Your task to perform on an android device: turn off picture-in-picture Image 0: 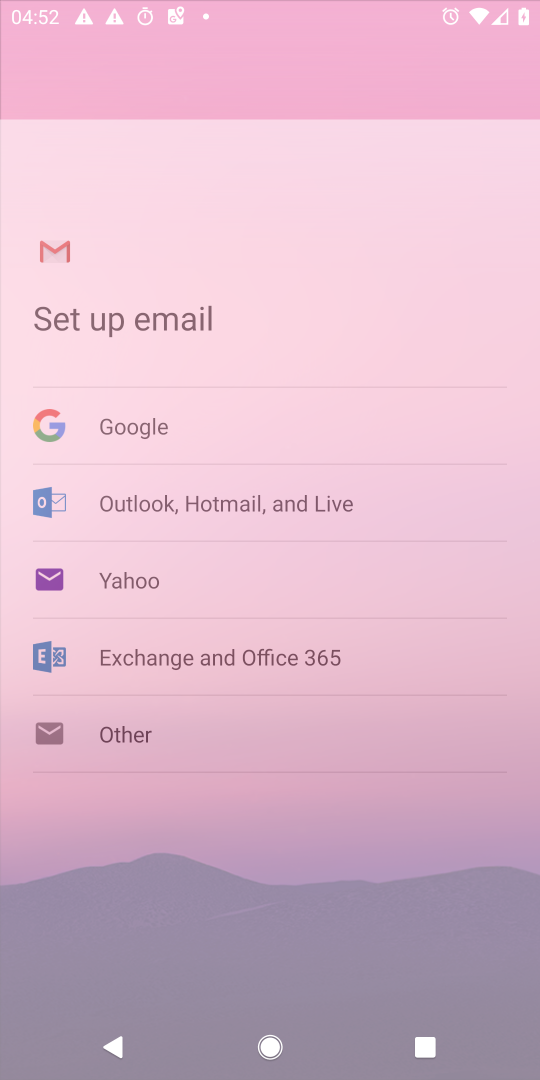
Step 0: press home button
Your task to perform on an android device: turn off picture-in-picture Image 1: 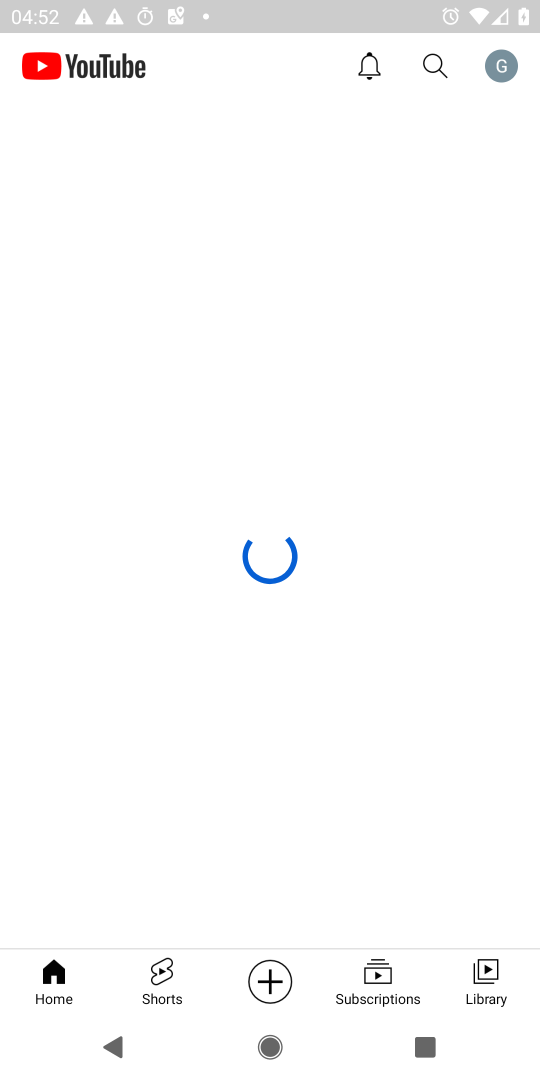
Step 1: press home button
Your task to perform on an android device: turn off picture-in-picture Image 2: 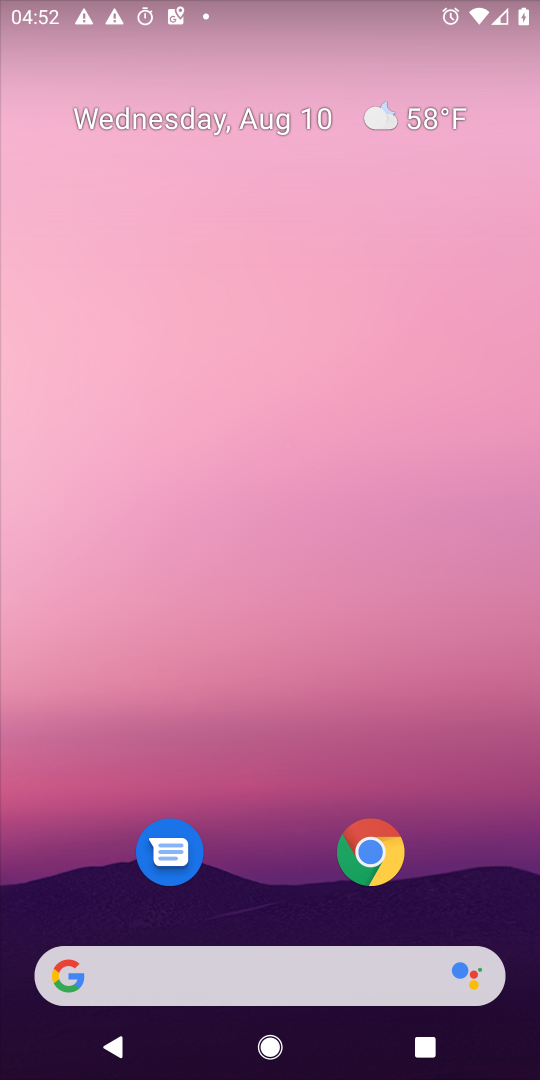
Step 2: press home button
Your task to perform on an android device: turn off picture-in-picture Image 3: 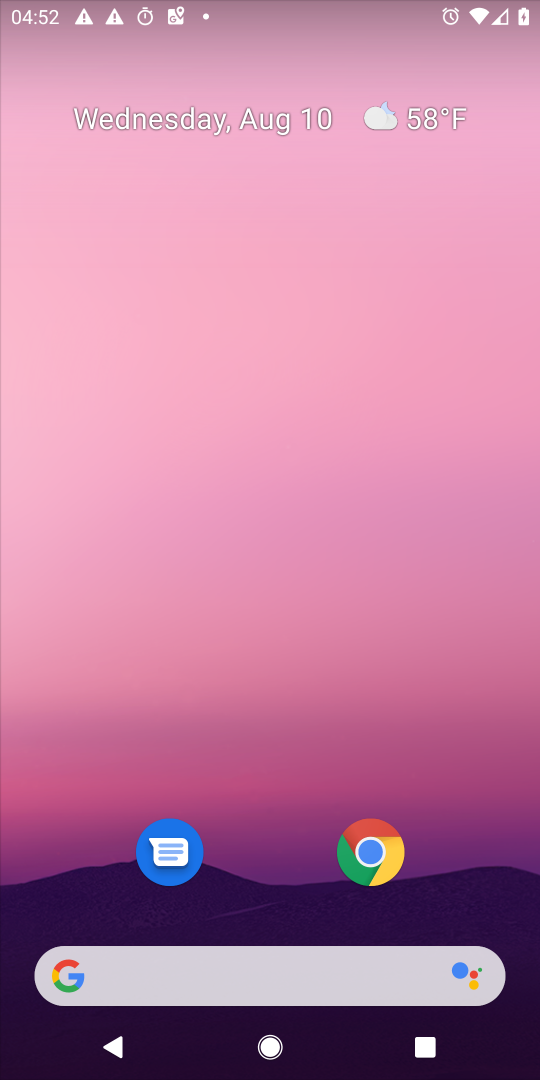
Step 3: click (379, 849)
Your task to perform on an android device: turn off picture-in-picture Image 4: 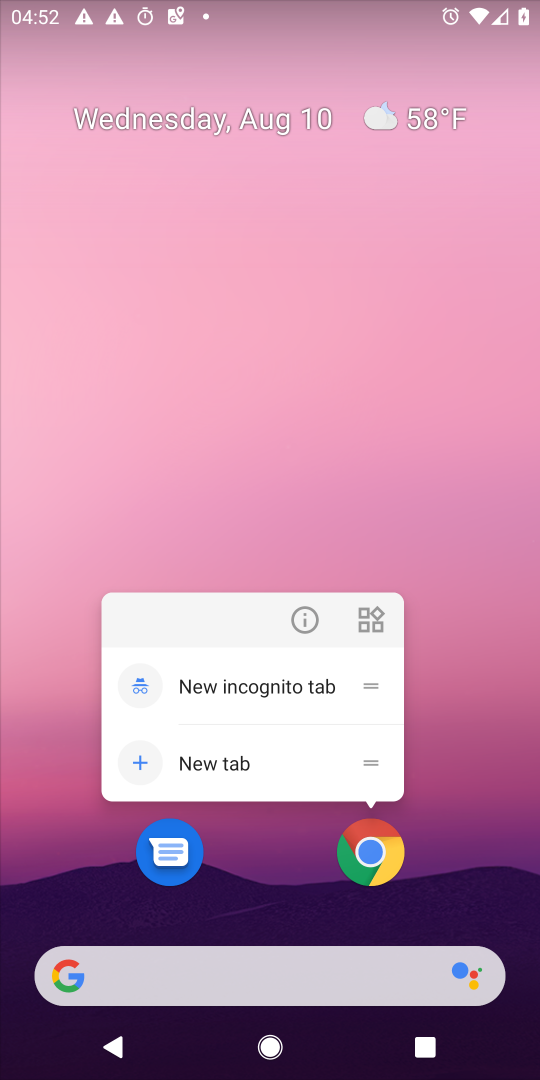
Step 4: click (310, 626)
Your task to perform on an android device: turn off picture-in-picture Image 5: 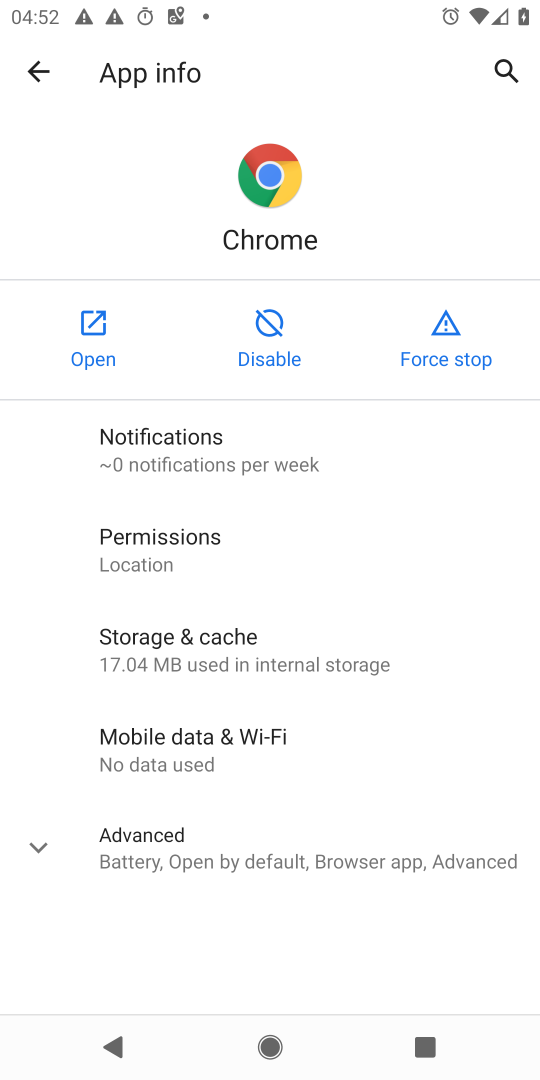
Step 5: click (232, 855)
Your task to perform on an android device: turn off picture-in-picture Image 6: 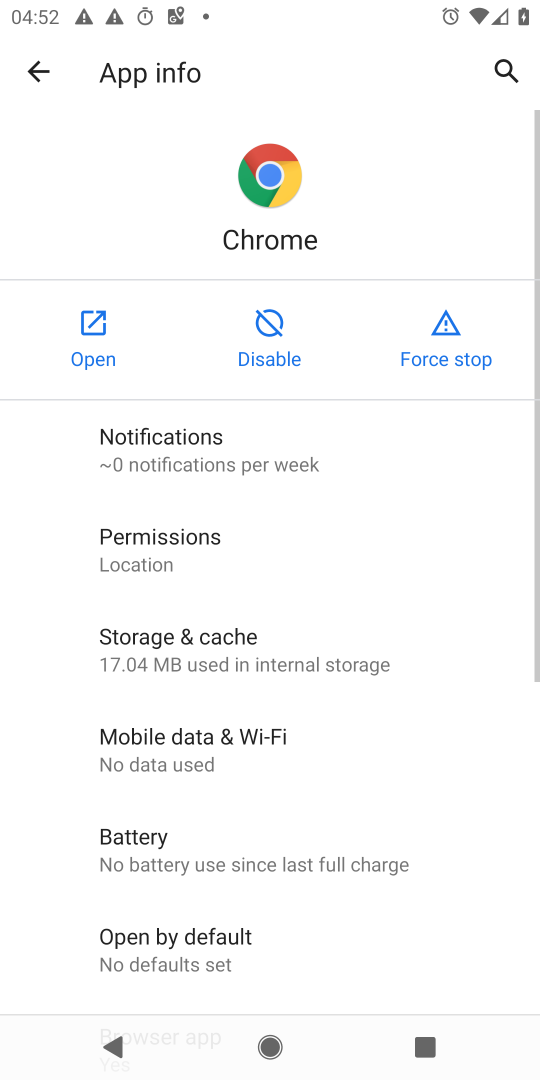
Step 6: drag from (400, 914) to (354, 370)
Your task to perform on an android device: turn off picture-in-picture Image 7: 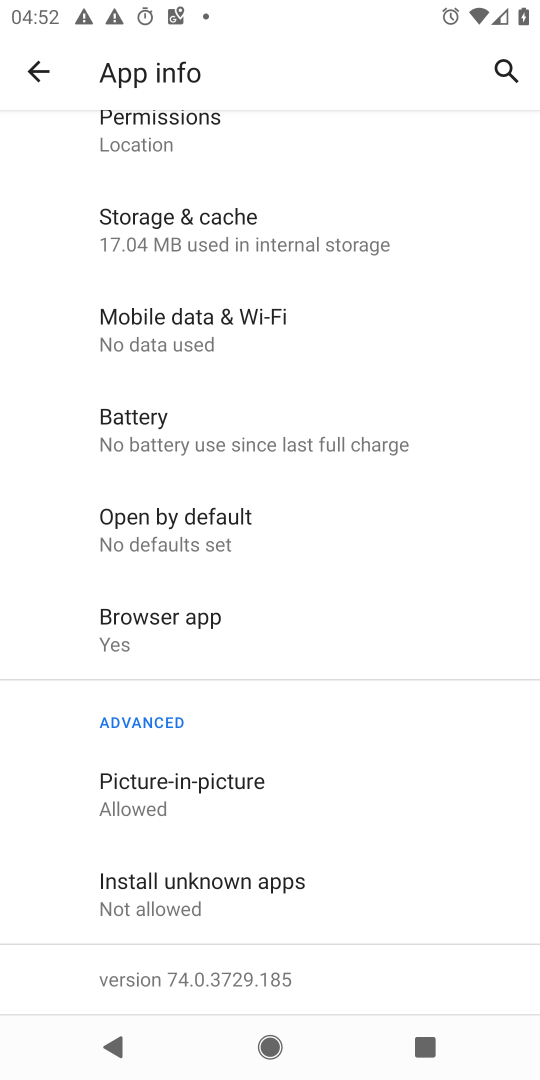
Step 7: click (131, 767)
Your task to perform on an android device: turn off picture-in-picture Image 8: 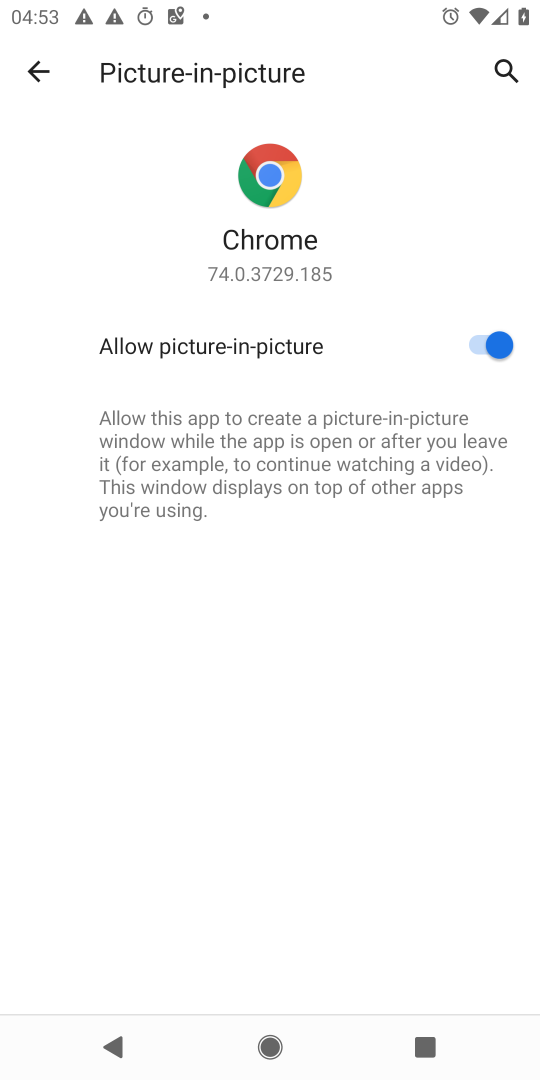
Step 8: click (489, 334)
Your task to perform on an android device: turn off picture-in-picture Image 9: 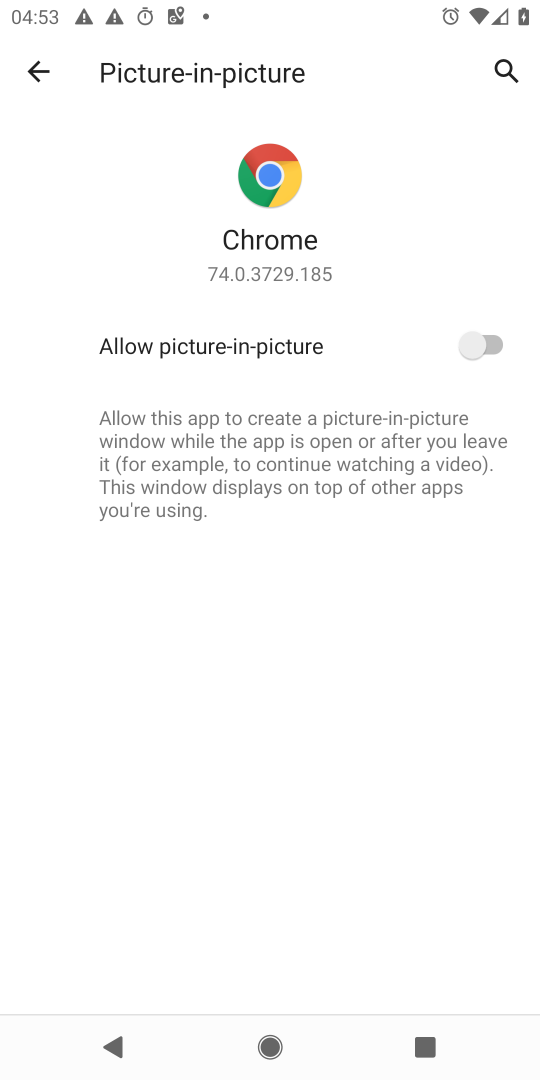
Step 9: task complete